Your task to perform on an android device: Show me popular videos on Youtube Image 0: 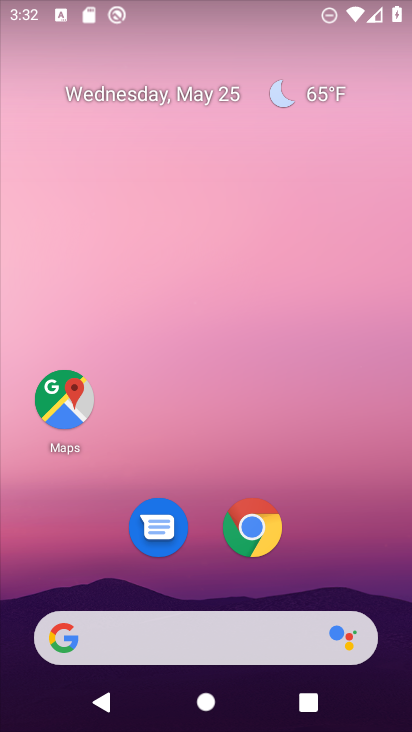
Step 0: drag from (184, 625) to (213, 1)
Your task to perform on an android device: Show me popular videos on Youtube Image 1: 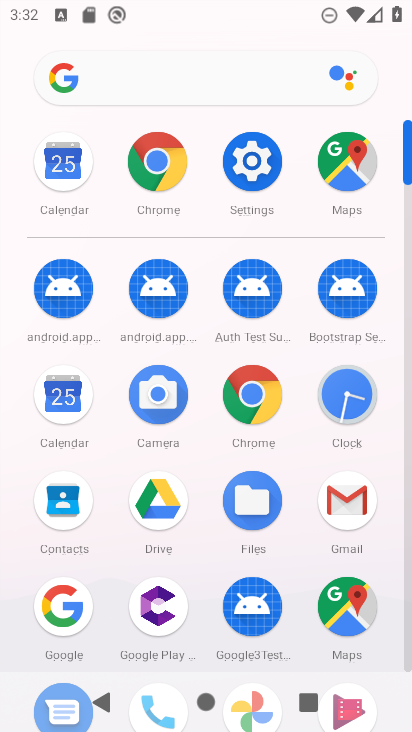
Step 1: drag from (302, 596) to (297, 200)
Your task to perform on an android device: Show me popular videos on Youtube Image 2: 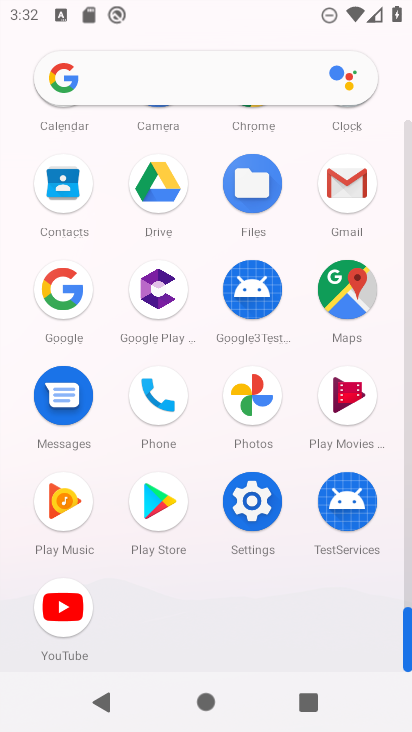
Step 2: click (58, 623)
Your task to perform on an android device: Show me popular videos on Youtube Image 3: 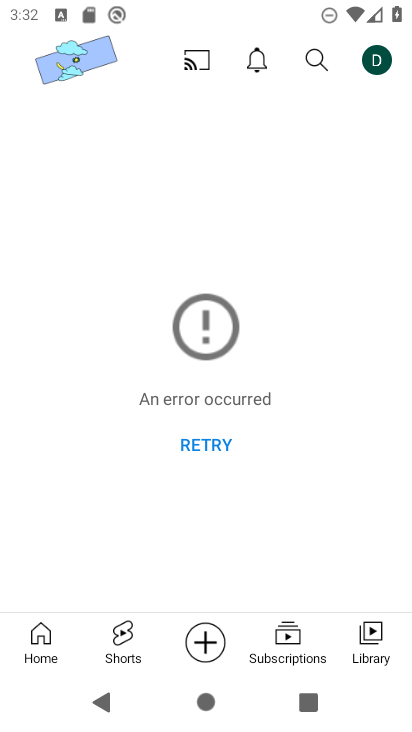
Step 3: click (374, 650)
Your task to perform on an android device: Show me popular videos on Youtube Image 4: 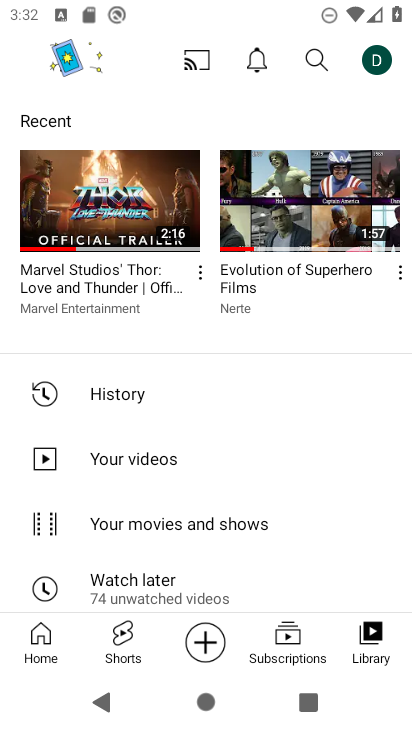
Step 4: click (40, 646)
Your task to perform on an android device: Show me popular videos on Youtube Image 5: 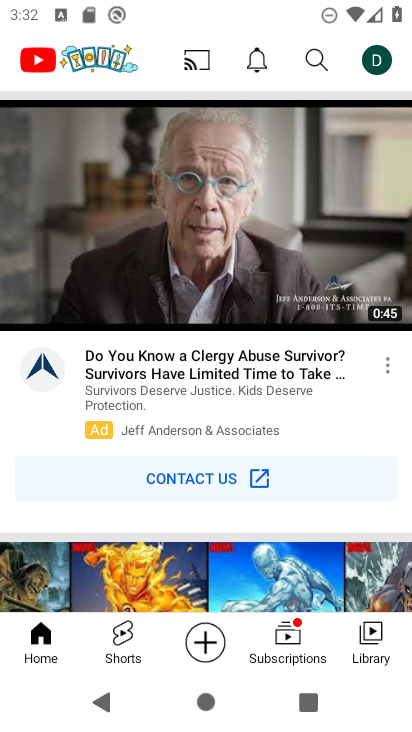
Step 5: task complete